Your task to perform on an android device: toggle notification dots Image 0: 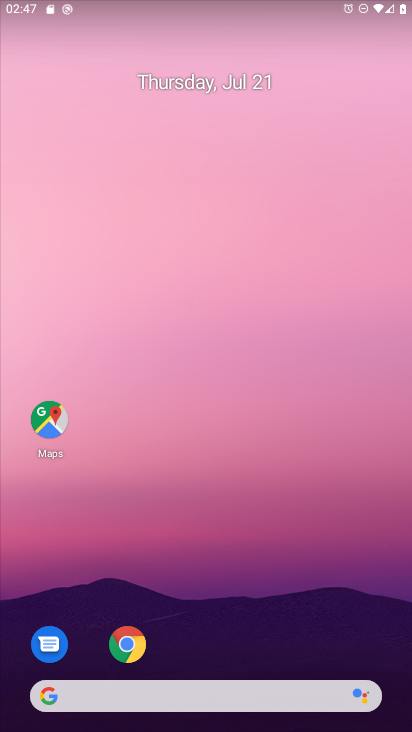
Step 0: drag from (218, 615) to (183, 168)
Your task to perform on an android device: toggle notification dots Image 1: 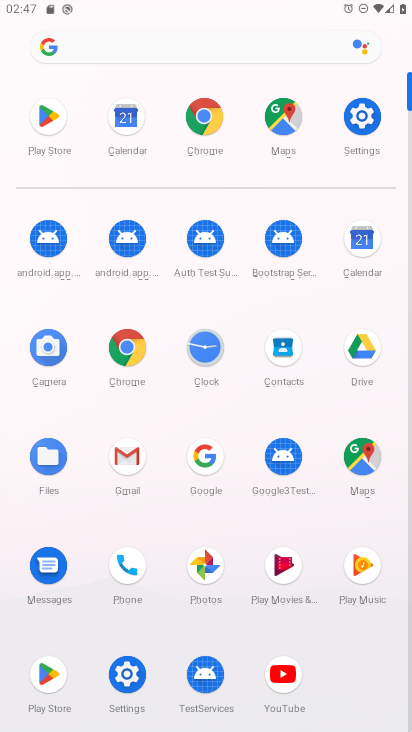
Step 1: click (354, 131)
Your task to perform on an android device: toggle notification dots Image 2: 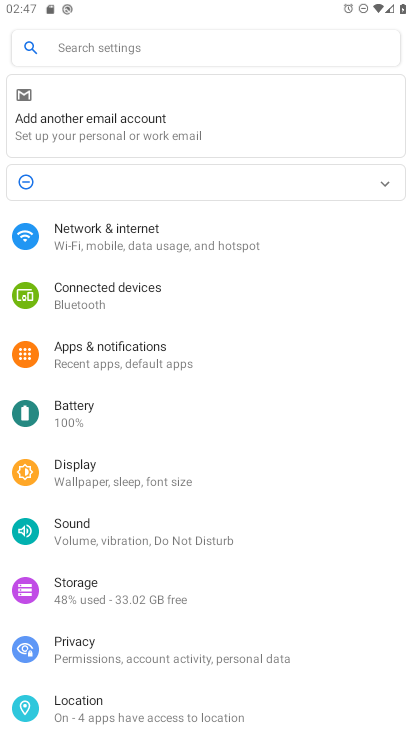
Step 2: click (131, 354)
Your task to perform on an android device: toggle notification dots Image 3: 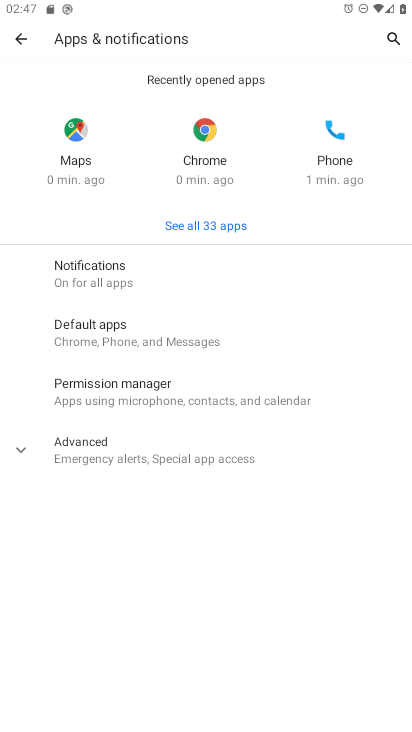
Step 3: click (76, 269)
Your task to perform on an android device: toggle notification dots Image 4: 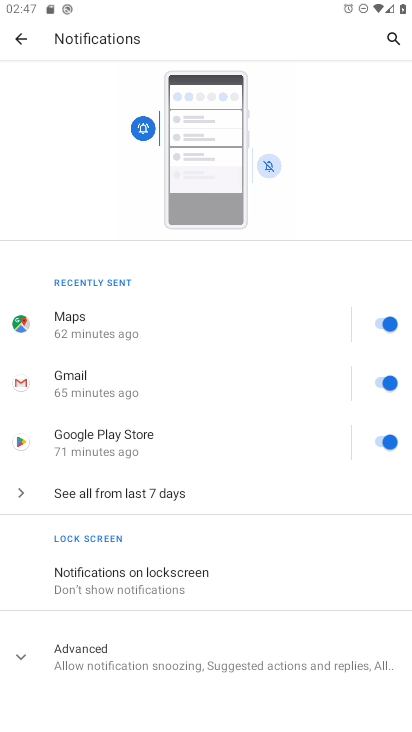
Step 4: click (101, 653)
Your task to perform on an android device: toggle notification dots Image 5: 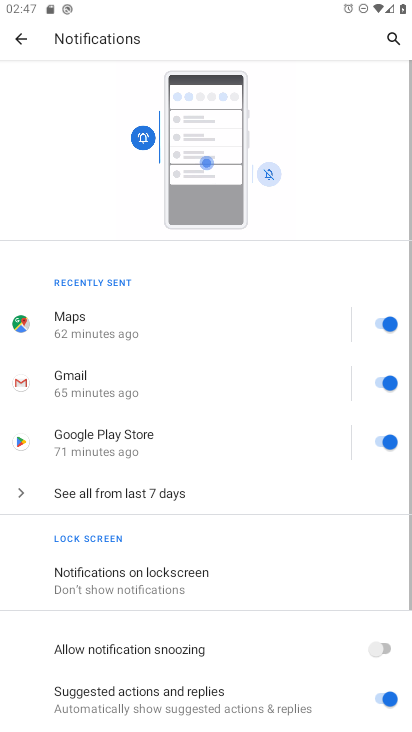
Step 5: drag from (197, 609) to (196, 242)
Your task to perform on an android device: toggle notification dots Image 6: 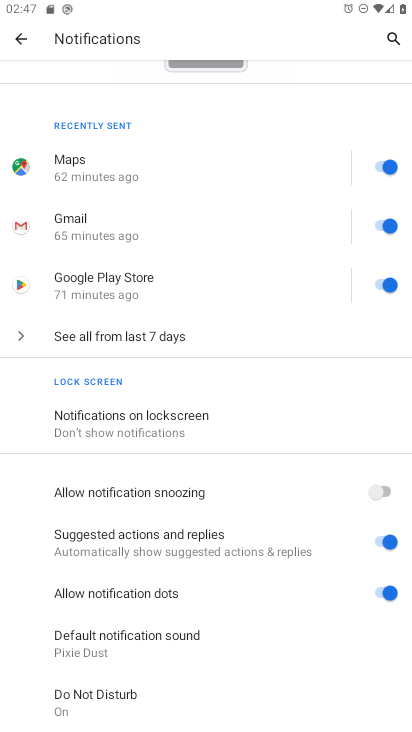
Step 6: click (383, 590)
Your task to perform on an android device: toggle notification dots Image 7: 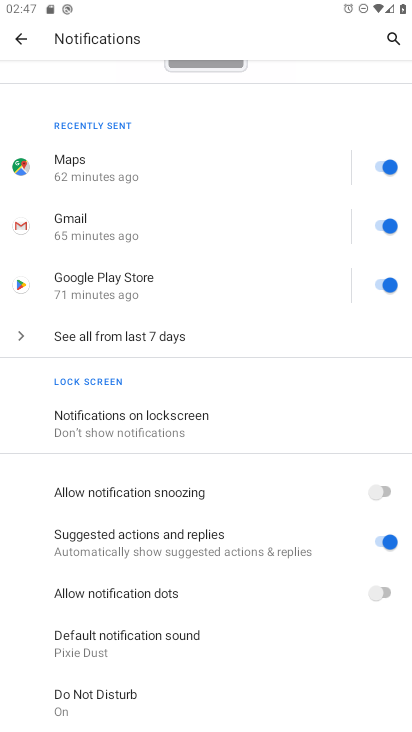
Step 7: task complete